Your task to perform on an android device: Open the calendar app, open the side menu, and click the "Day" option Image 0: 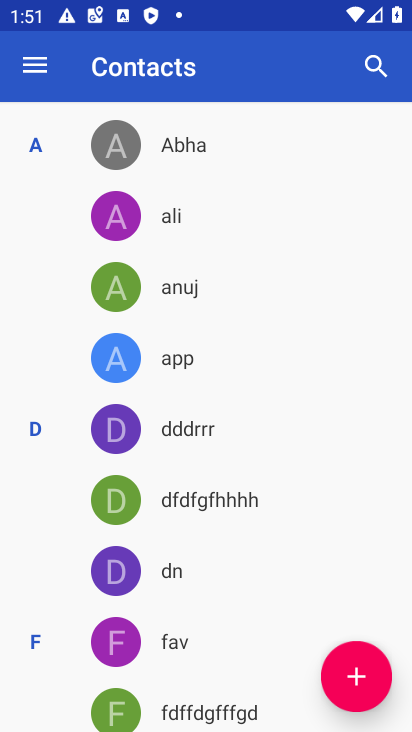
Step 0: press home button
Your task to perform on an android device: Open the calendar app, open the side menu, and click the "Day" option Image 1: 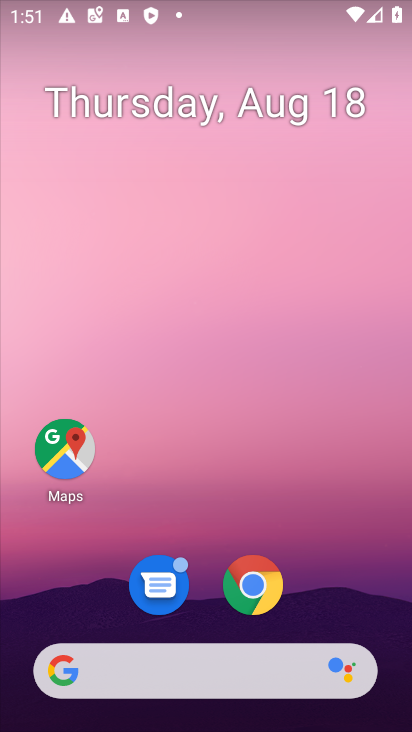
Step 1: drag from (202, 455) to (232, 1)
Your task to perform on an android device: Open the calendar app, open the side menu, and click the "Day" option Image 2: 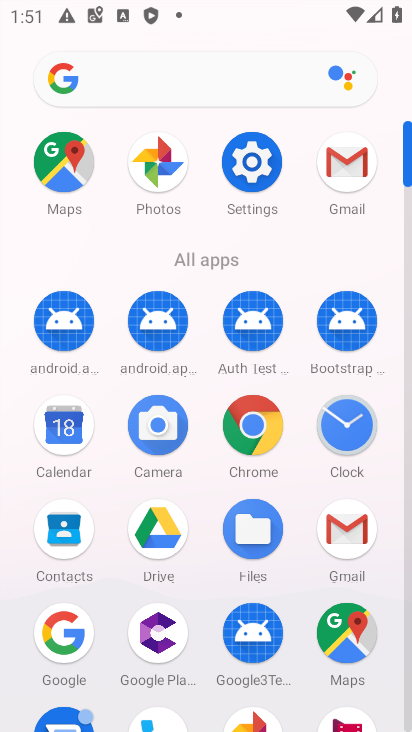
Step 2: click (65, 428)
Your task to perform on an android device: Open the calendar app, open the side menu, and click the "Day" option Image 3: 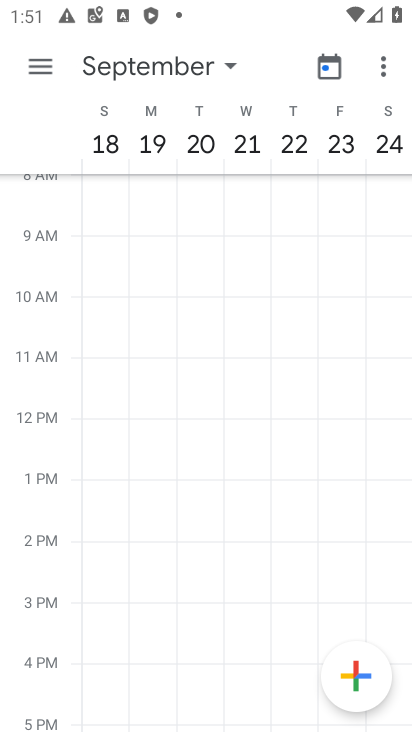
Step 3: click (37, 58)
Your task to perform on an android device: Open the calendar app, open the side menu, and click the "Day" option Image 4: 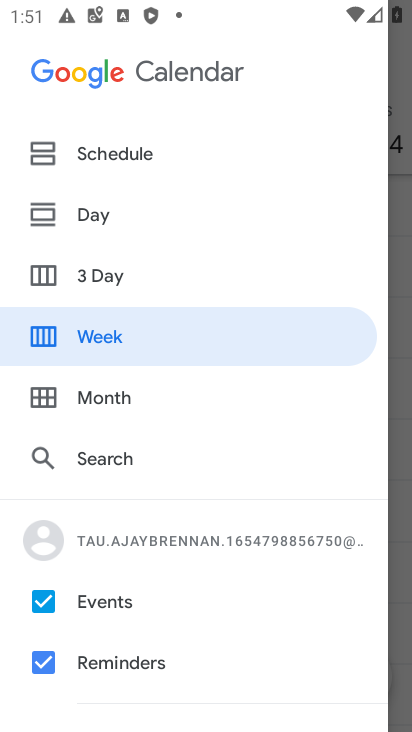
Step 4: click (37, 209)
Your task to perform on an android device: Open the calendar app, open the side menu, and click the "Day" option Image 5: 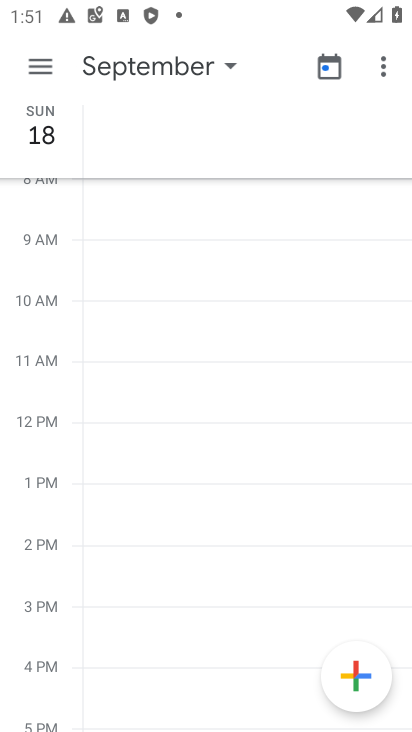
Step 5: task complete